Your task to perform on an android device: turn on location history Image 0: 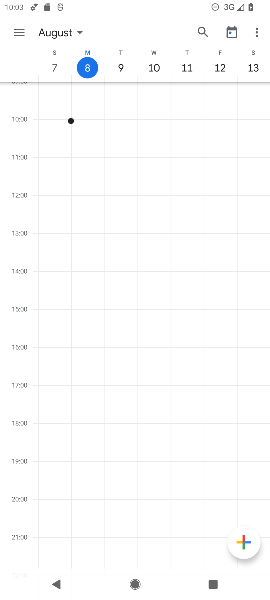
Step 0: press home button
Your task to perform on an android device: turn on location history Image 1: 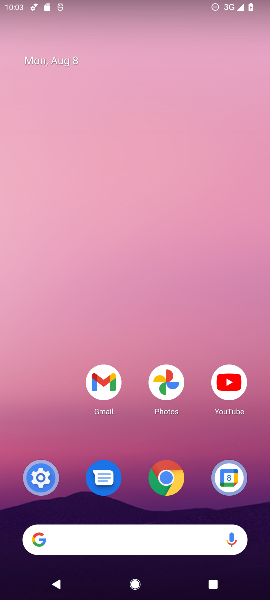
Step 1: drag from (145, 512) to (145, 61)
Your task to perform on an android device: turn on location history Image 2: 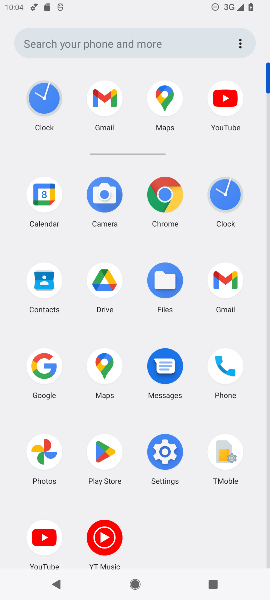
Step 2: click (158, 449)
Your task to perform on an android device: turn on location history Image 3: 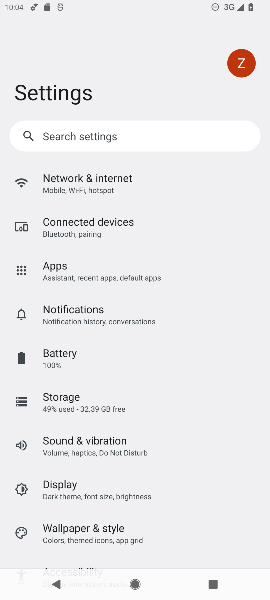
Step 3: drag from (114, 431) to (135, 96)
Your task to perform on an android device: turn on location history Image 4: 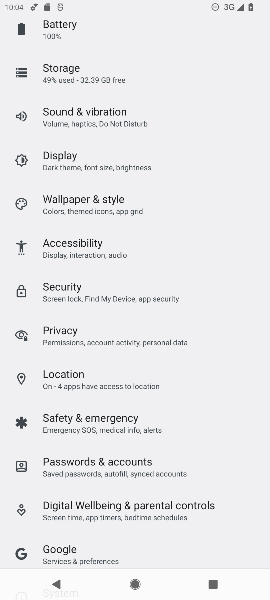
Step 4: click (75, 385)
Your task to perform on an android device: turn on location history Image 5: 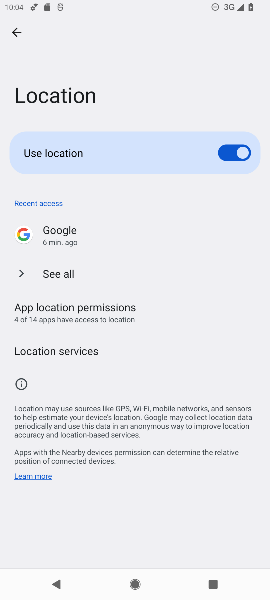
Step 5: click (42, 348)
Your task to perform on an android device: turn on location history Image 6: 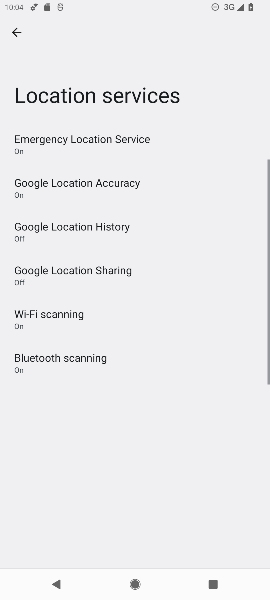
Step 6: click (89, 226)
Your task to perform on an android device: turn on location history Image 7: 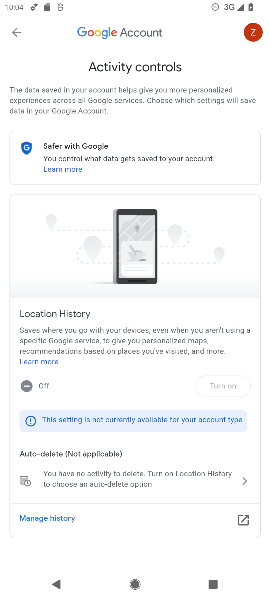
Step 7: task complete